Your task to perform on an android device: change the clock display to digital Image 0: 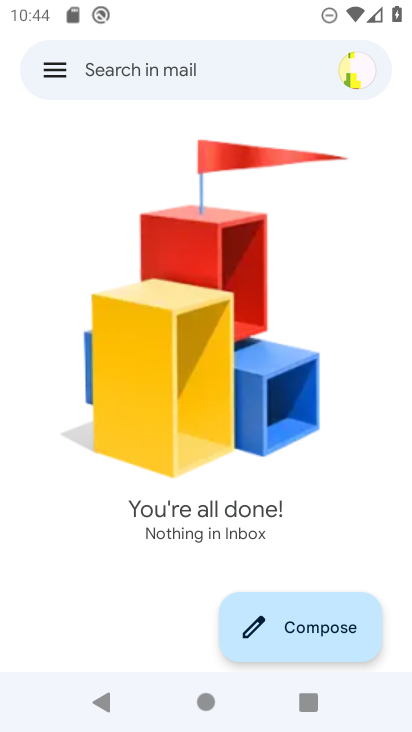
Step 0: press home button
Your task to perform on an android device: change the clock display to digital Image 1: 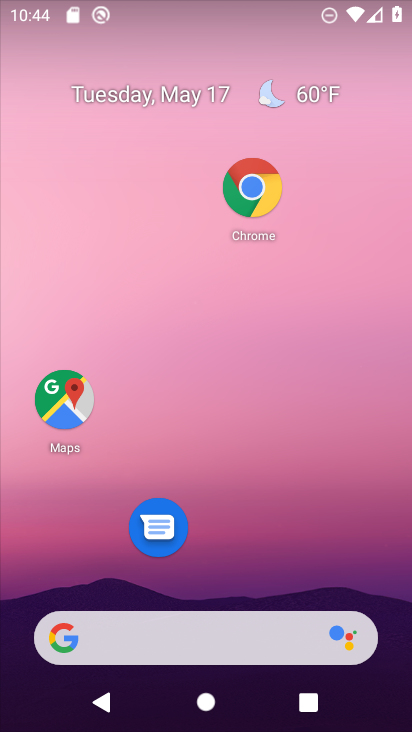
Step 1: drag from (227, 593) to (293, 171)
Your task to perform on an android device: change the clock display to digital Image 2: 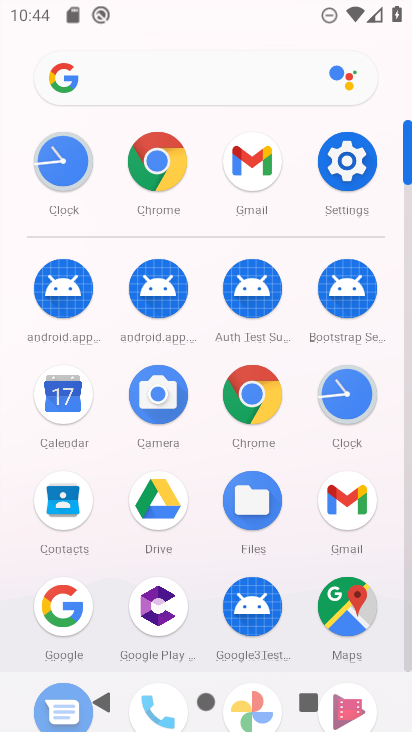
Step 2: click (348, 404)
Your task to perform on an android device: change the clock display to digital Image 3: 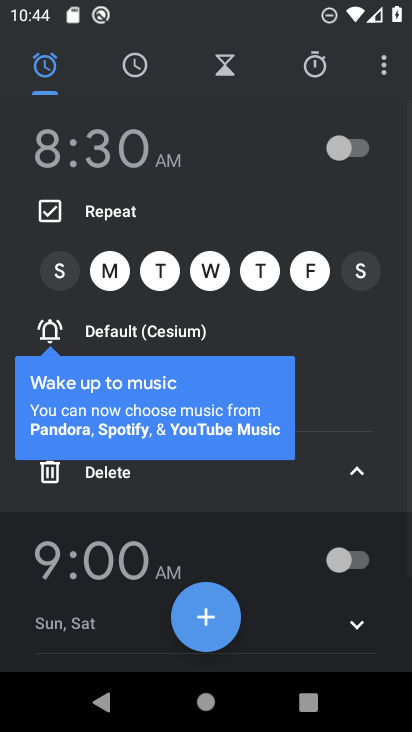
Step 3: click (379, 64)
Your task to perform on an android device: change the clock display to digital Image 4: 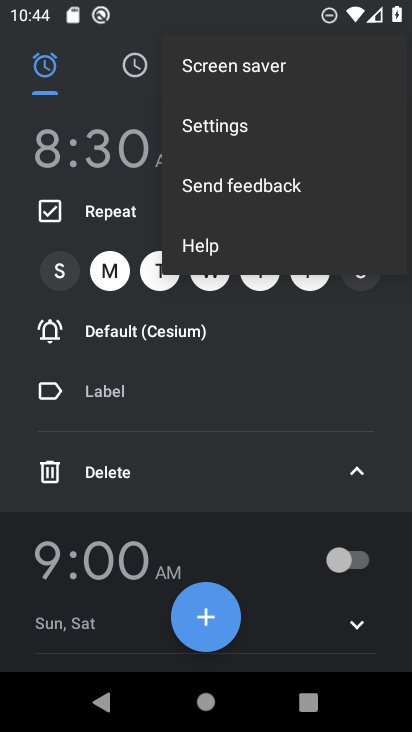
Step 4: click (255, 122)
Your task to perform on an android device: change the clock display to digital Image 5: 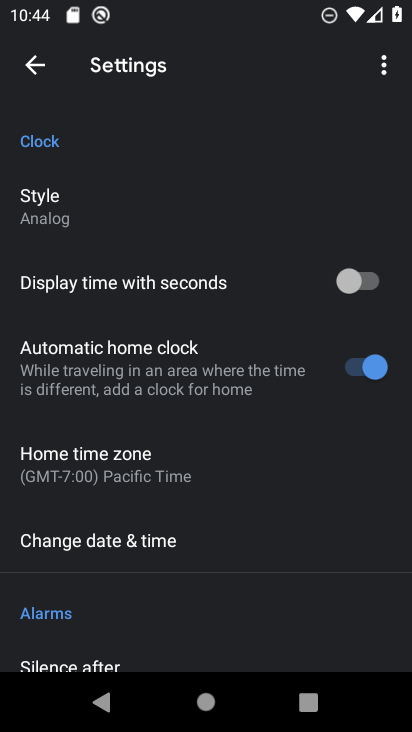
Step 5: click (199, 212)
Your task to perform on an android device: change the clock display to digital Image 6: 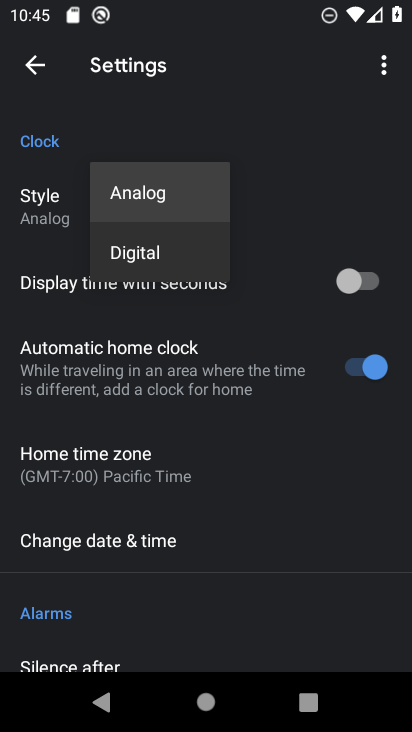
Step 6: click (176, 245)
Your task to perform on an android device: change the clock display to digital Image 7: 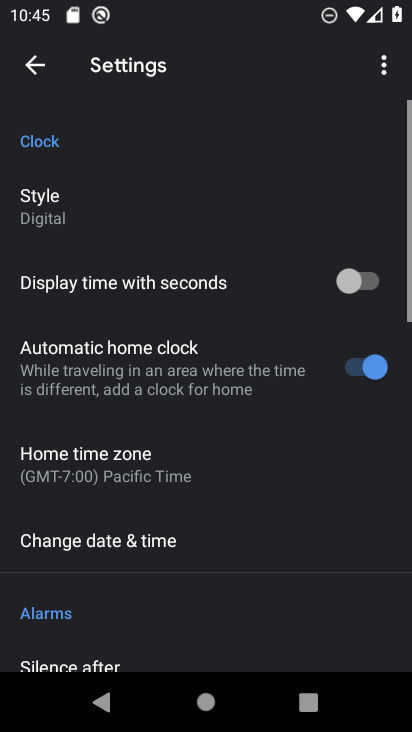
Step 7: task complete